Your task to perform on an android device: see sites visited before in the chrome app Image 0: 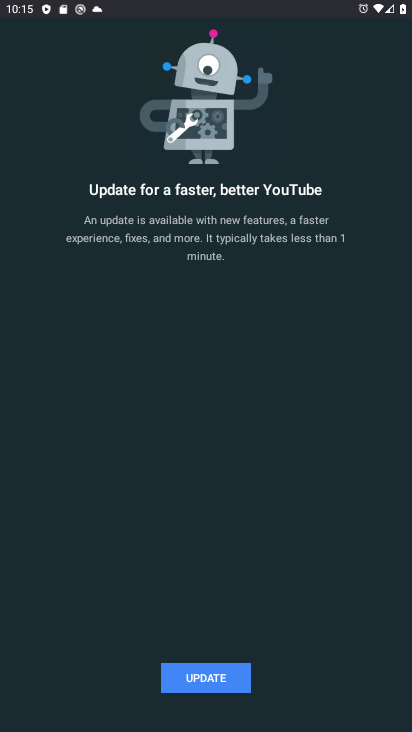
Step 0: press home button
Your task to perform on an android device: see sites visited before in the chrome app Image 1: 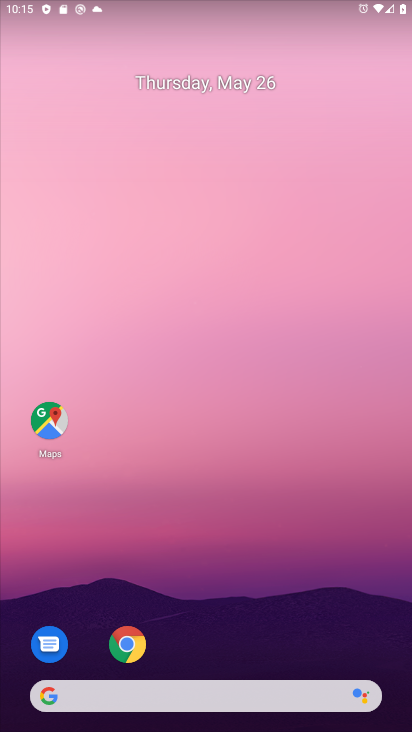
Step 1: click (126, 625)
Your task to perform on an android device: see sites visited before in the chrome app Image 2: 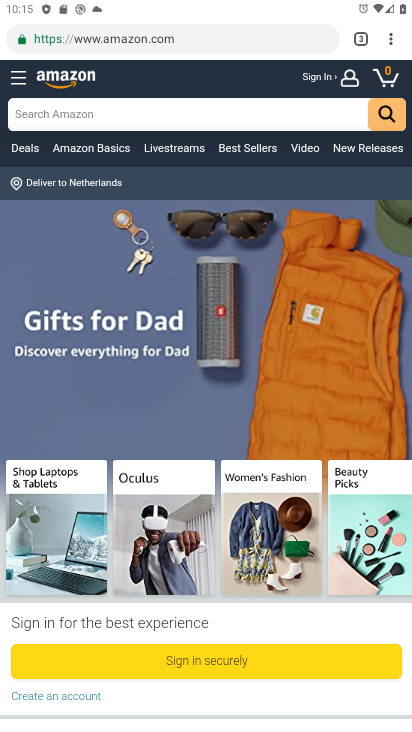
Step 2: click (393, 37)
Your task to perform on an android device: see sites visited before in the chrome app Image 3: 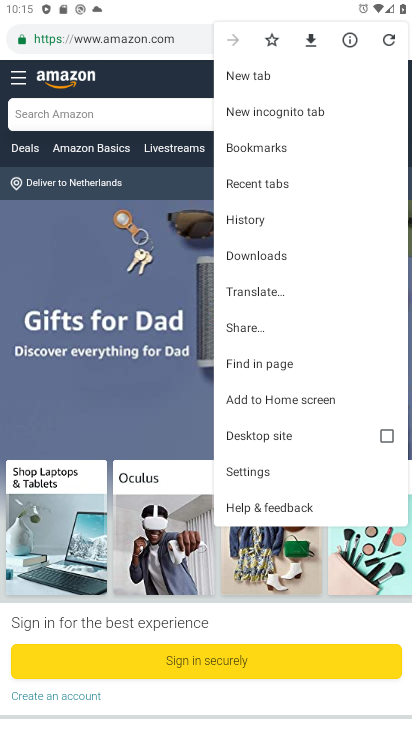
Step 3: click (276, 177)
Your task to perform on an android device: see sites visited before in the chrome app Image 4: 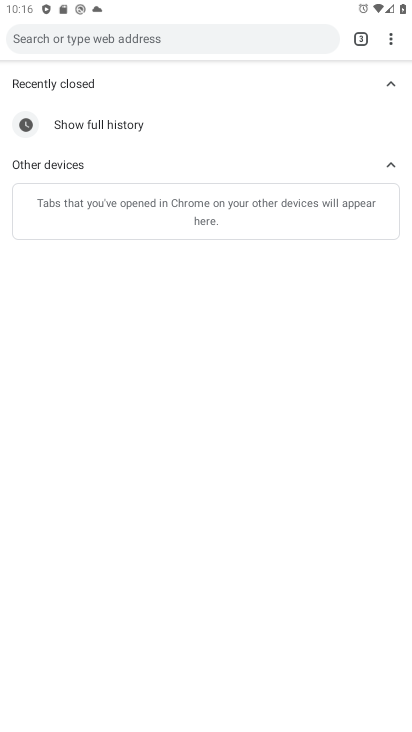
Step 4: task complete